Your task to perform on an android device: set an alarm Image 0: 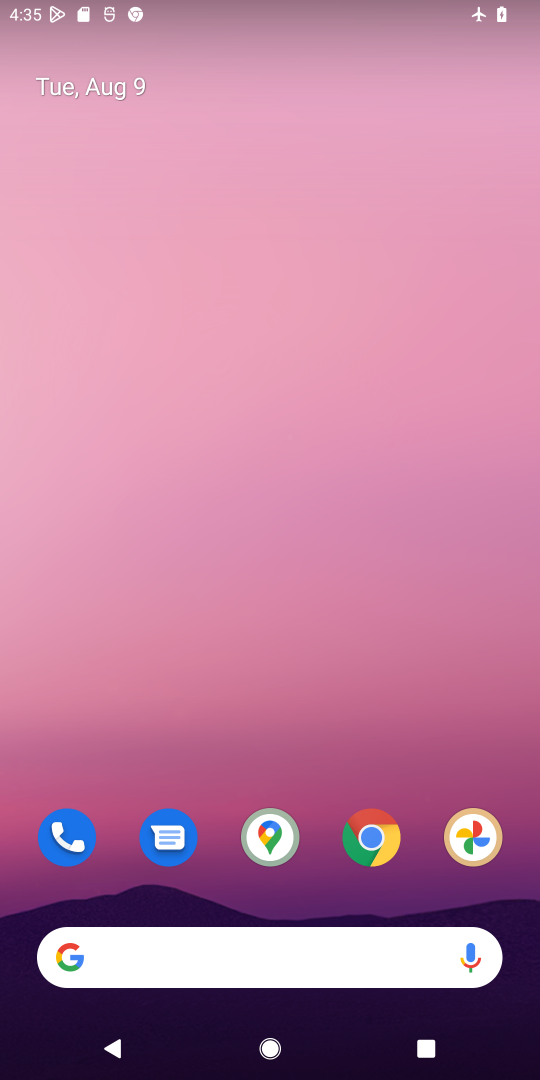
Step 0: drag from (282, 823) to (282, 184)
Your task to perform on an android device: set an alarm Image 1: 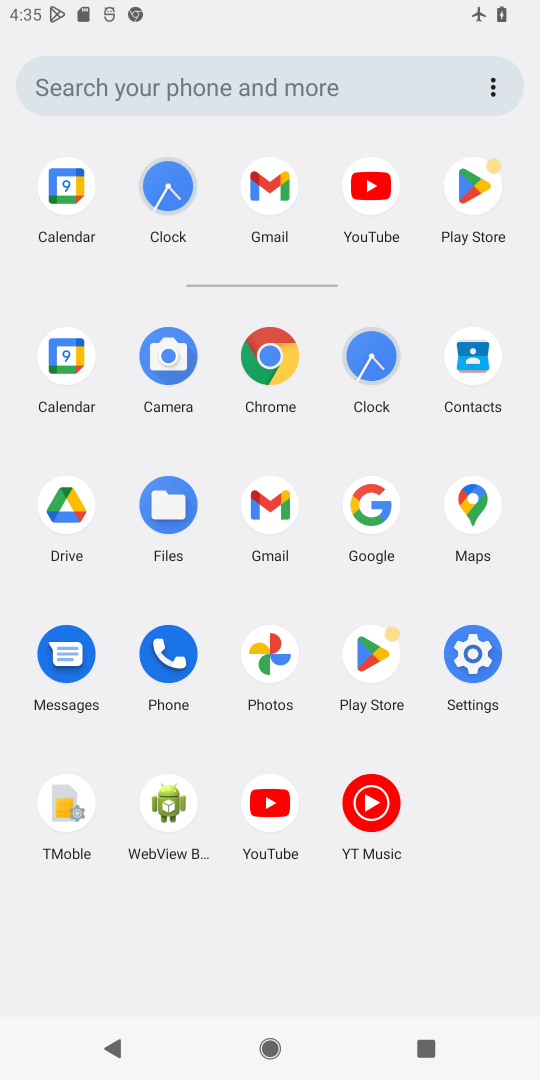
Step 1: click (161, 174)
Your task to perform on an android device: set an alarm Image 2: 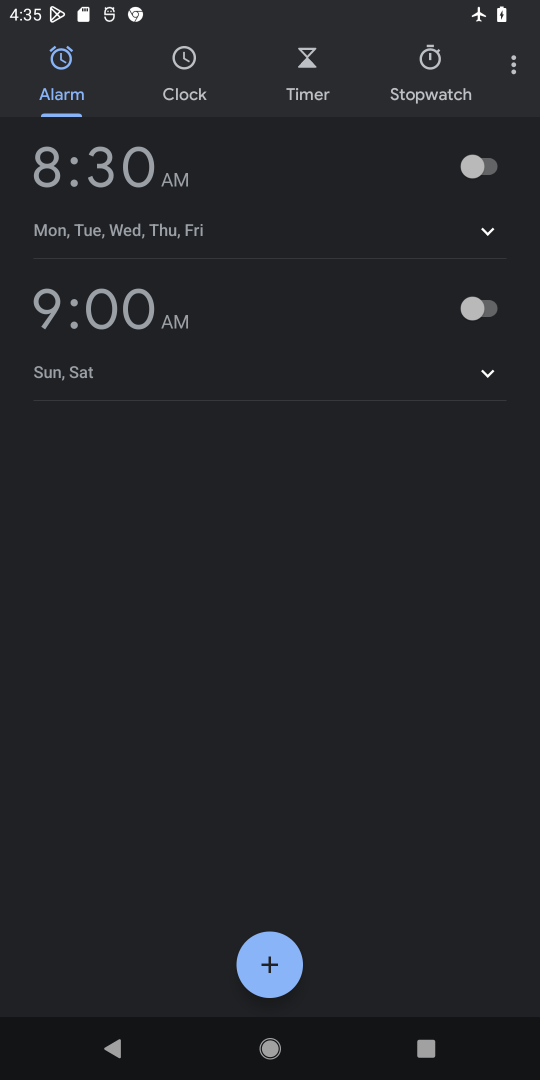
Step 2: click (477, 174)
Your task to perform on an android device: set an alarm Image 3: 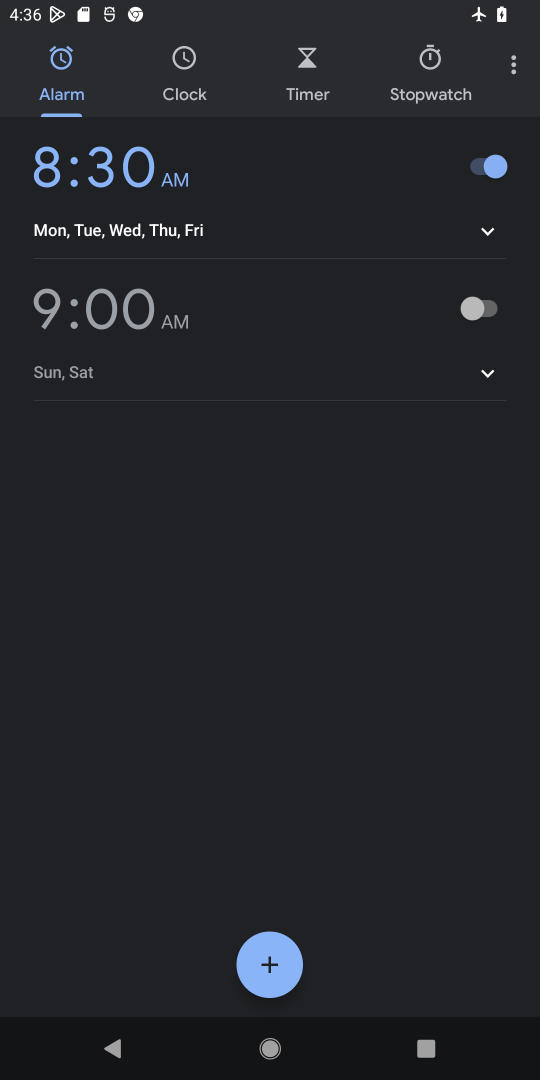
Step 3: task complete